Your task to perform on an android device: remove spam from my inbox in the gmail app Image 0: 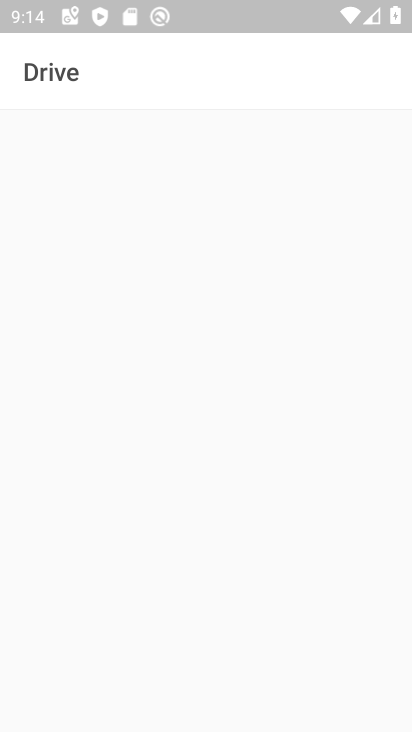
Step 0: press home button
Your task to perform on an android device: remove spam from my inbox in the gmail app Image 1: 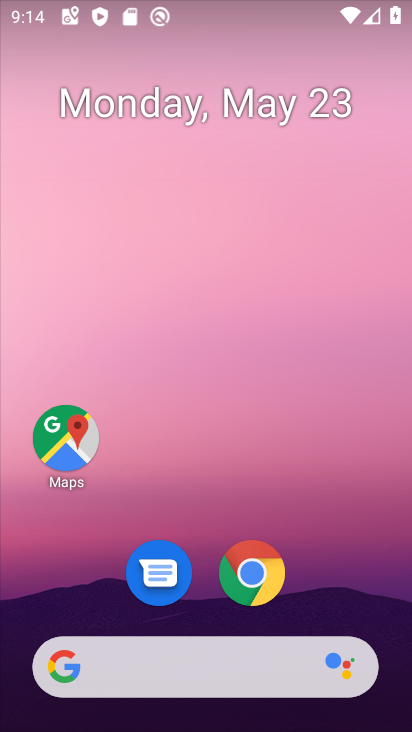
Step 1: drag from (365, 623) to (377, 278)
Your task to perform on an android device: remove spam from my inbox in the gmail app Image 2: 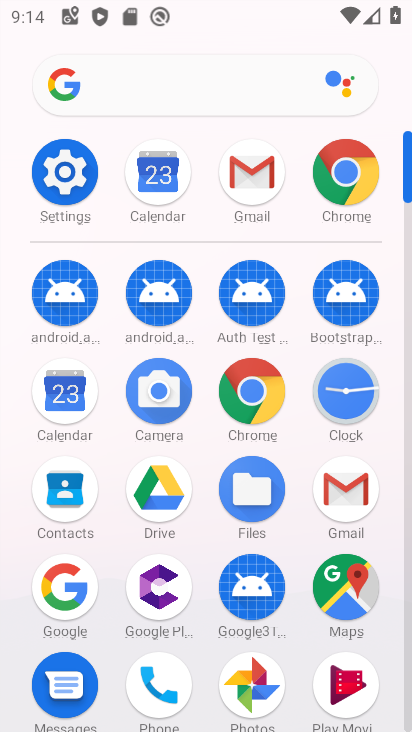
Step 2: click (346, 507)
Your task to perform on an android device: remove spam from my inbox in the gmail app Image 3: 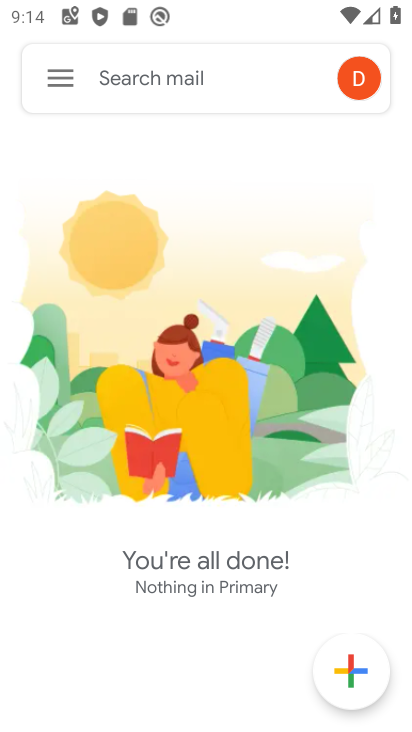
Step 3: click (62, 97)
Your task to perform on an android device: remove spam from my inbox in the gmail app Image 4: 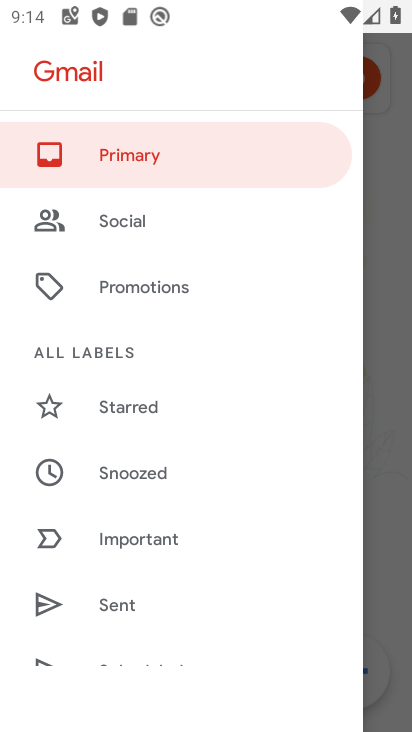
Step 4: drag from (303, 550) to (301, 465)
Your task to perform on an android device: remove spam from my inbox in the gmail app Image 5: 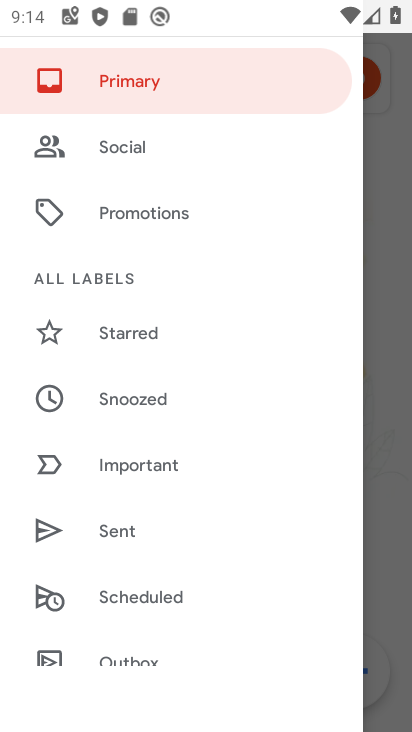
Step 5: drag from (307, 580) to (306, 462)
Your task to perform on an android device: remove spam from my inbox in the gmail app Image 6: 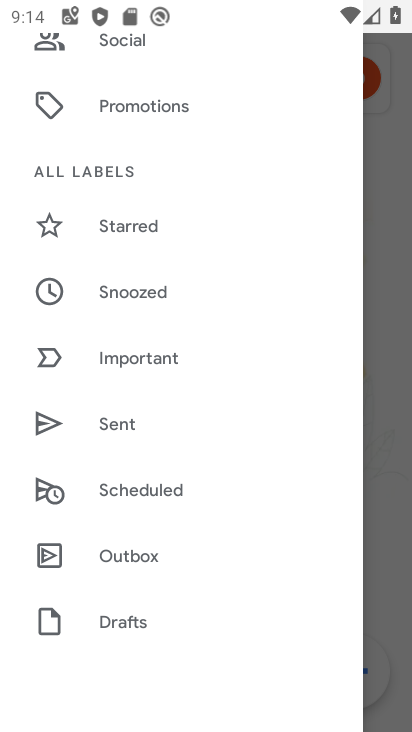
Step 6: drag from (300, 568) to (309, 485)
Your task to perform on an android device: remove spam from my inbox in the gmail app Image 7: 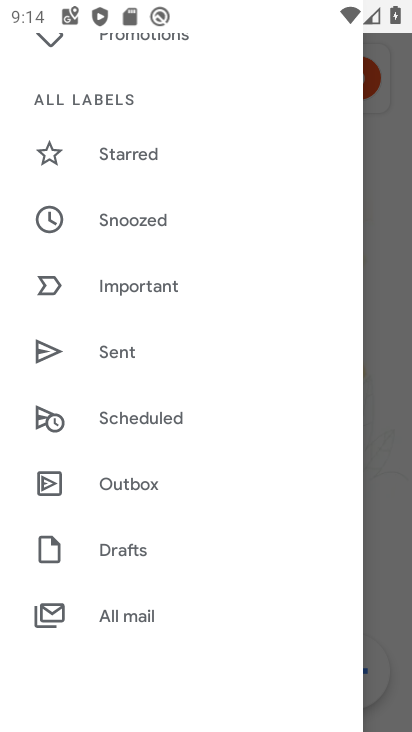
Step 7: drag from (307, 566) to (295, 461)
Your task to perform on an android device: remove spam from my inbox in the gmail app Image 8: 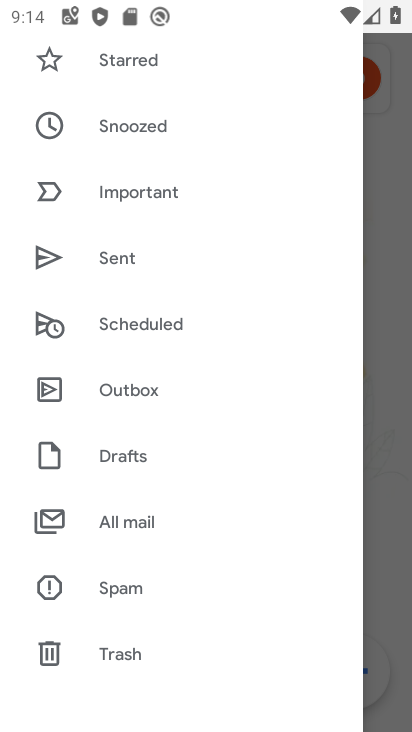
Step 8: drag from (259, 545) to (248, 470)
Your task to perform on an android device: remove spam from my inbox in the gmail app Image 9: 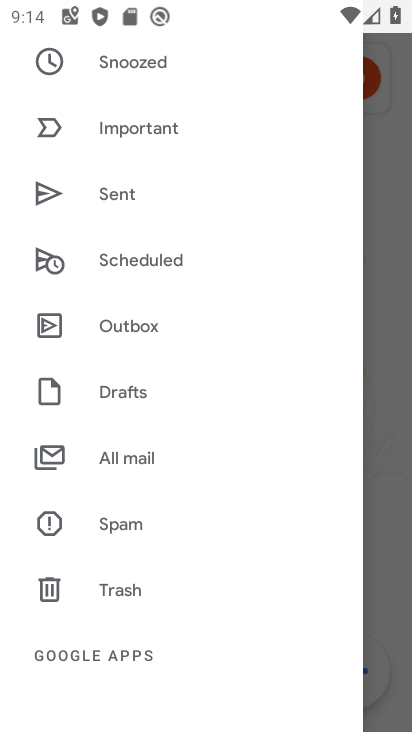
Step 9: drag from (273, 591) to (276, 487)
Your task to perform on an android device: remove spam from my inbox in the gmail app Image 10: 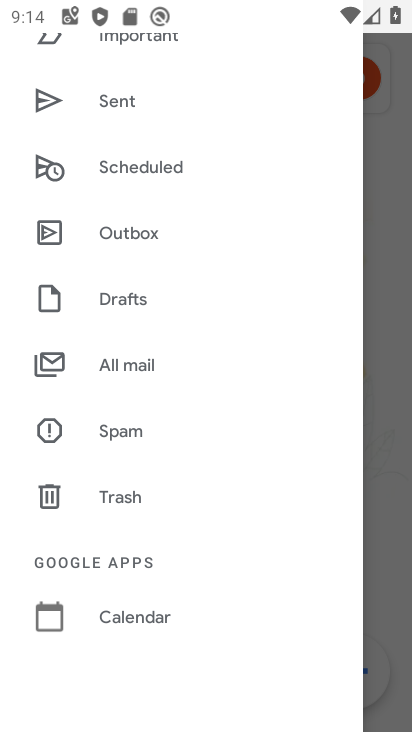
Step 10: drag from (276, 604) to (286, 504)
Your task to perform on an android device: remove spam from my inbox in the gmail app Image 11: 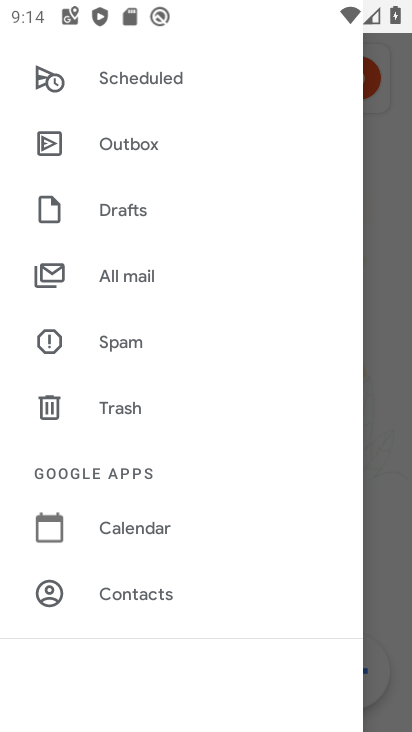
Step 11: click (188, 346)
Your task to perform on an android device: remove spam from my inbox in the gmail app Image 12: 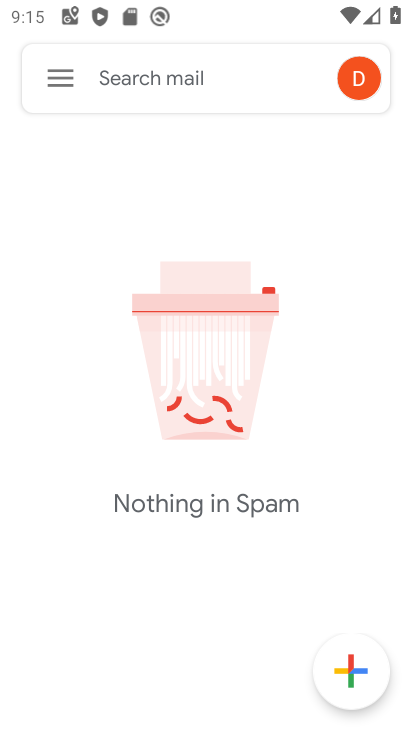
Step 12: task complete